Your task to perform on an android device: turn on bluetooth scan Image 0: 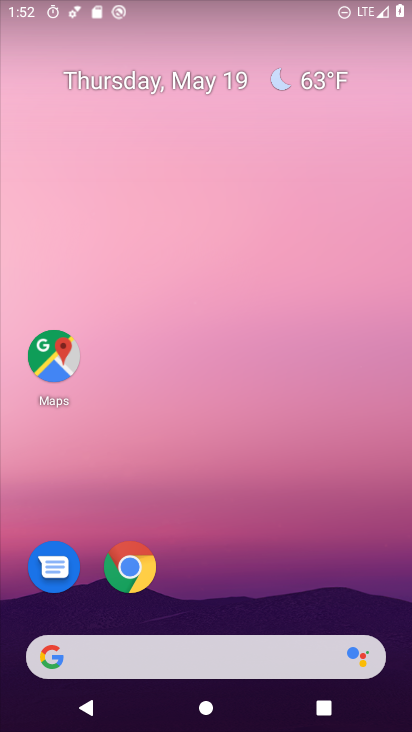
Step 0: drag from (190, 658) to (304, 130)
Your task to perform on an android device: turn on bluetooth scan Image 1: 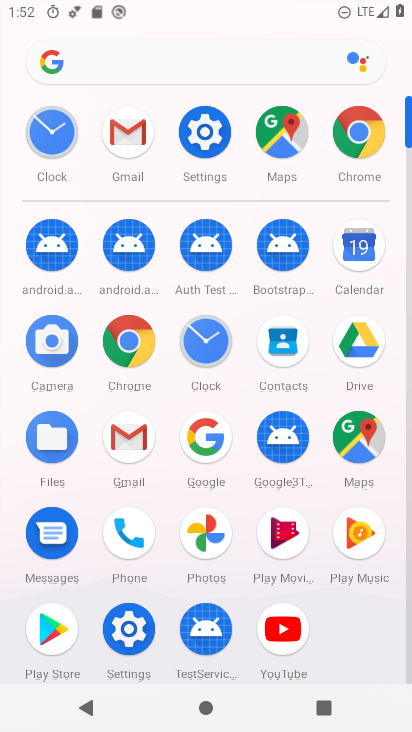
Step 1: click (207, 136)
Your task to perform on an android device: turn on bluetooth scan Image 2: 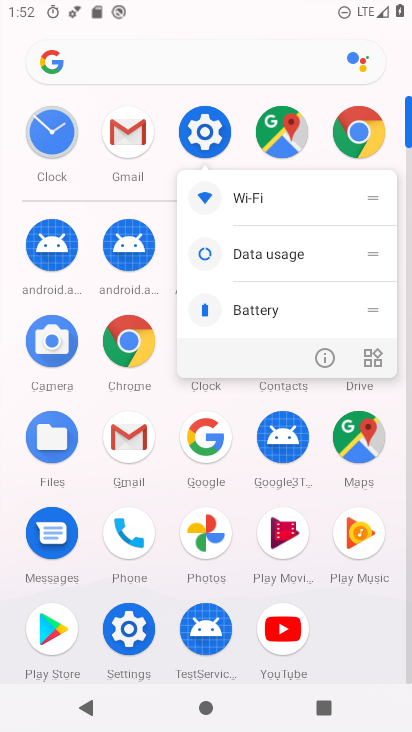
Step 2: click (207, 134)
Your task to perform on an android device: turn on bluetooth scan Image 3: 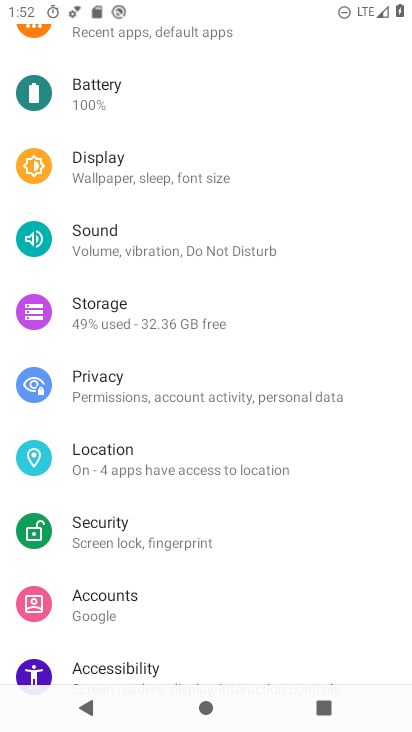
Step 3: click (129, 464)
Your task to perform on an android device: turn on bluetooth scan Image 4: 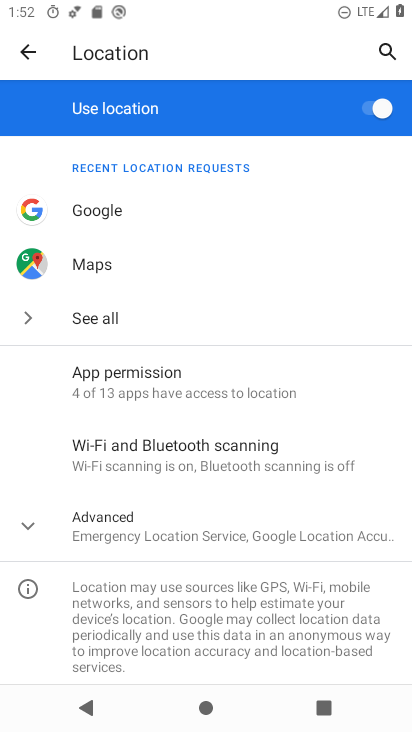
Step 4: click (203, 449)
Your task to perform on an android device: turn on bluetooth scan Image 5: 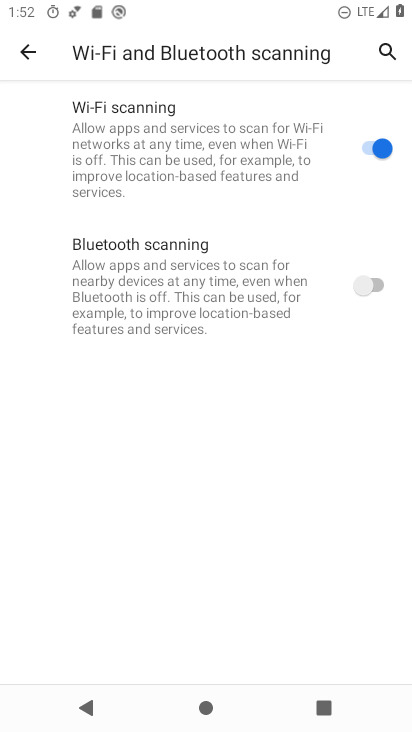
Step 5: click (378, 277)
Your task to perform on an android device: turn on bluetooth scan Image 6: 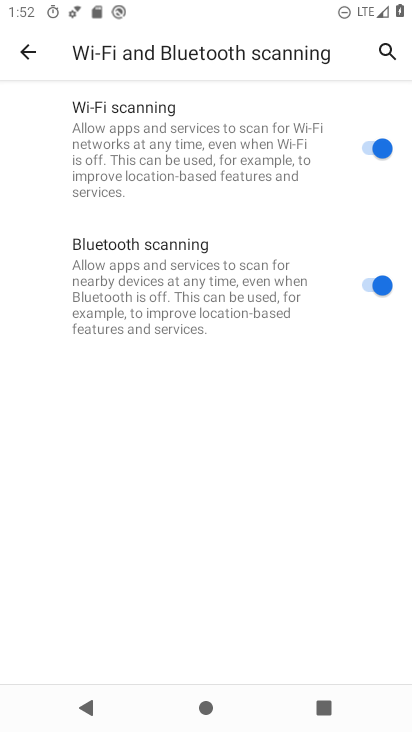
Step 6: task complete